Your task to perform on an android device: toggle priority inbox in the gmail app Image 0: 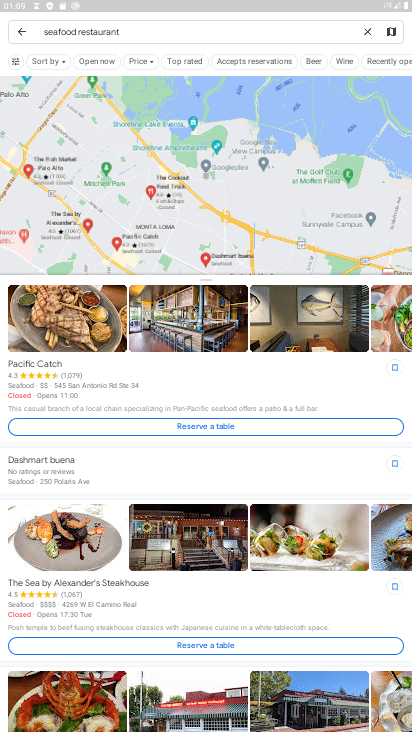
Step 0: press home button
Your task to perform on an android device: toggle priority inbox in the gmail app Image 1: 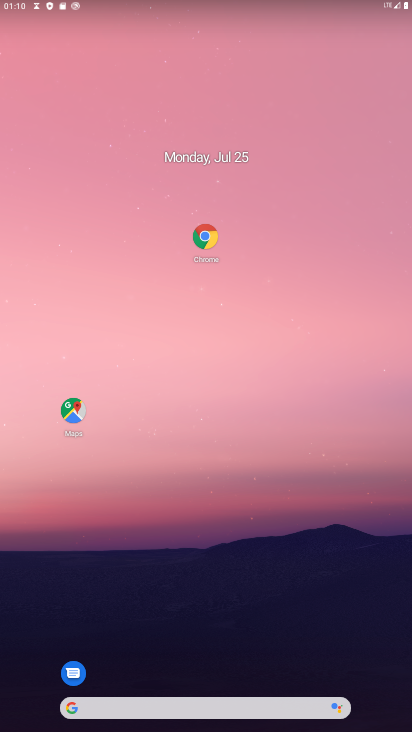
Step 1: drag from (293, 646) to (313, 38)
Your task to perform on an android device: toggle priority inbox in the gmail app Image 2: 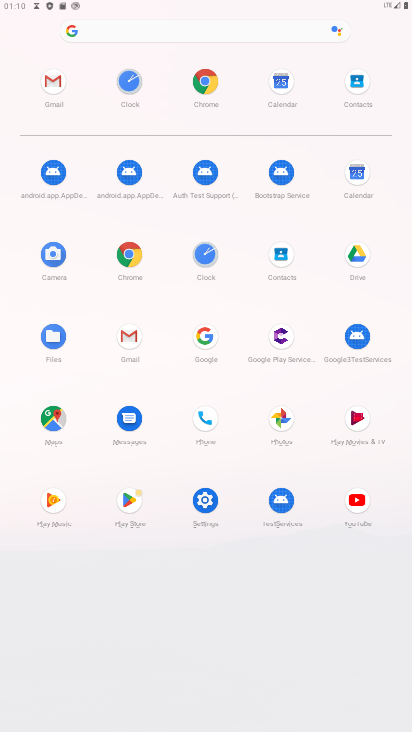
Step 2: click (118, 341)
Your task to perform on an android device: toggle priority inbox in the gmail app Image 3: 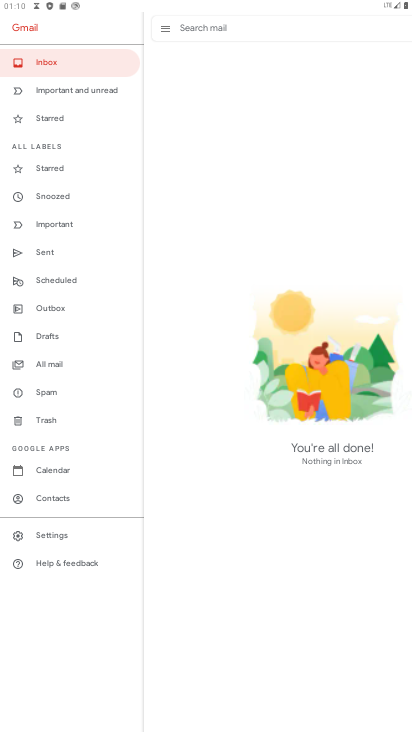
Step 3: click (70, 543)
Your task to perform on an android device: toggle priority inbox in the gmail app Image 4: 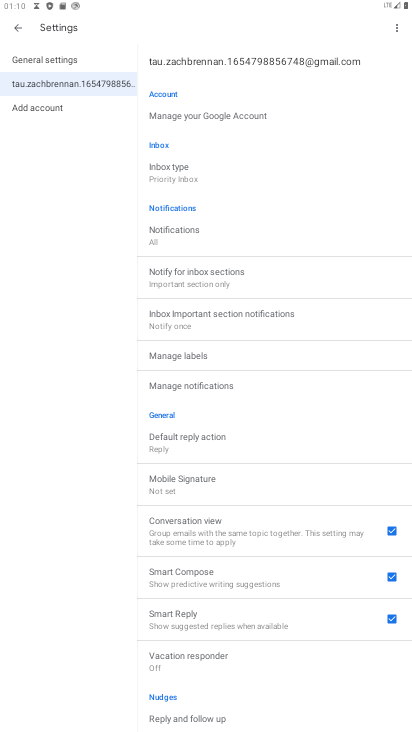
Step 4: click (185, 174)
Your task to perform on an android device: toggle priority inbox in the gmail app Image 5: 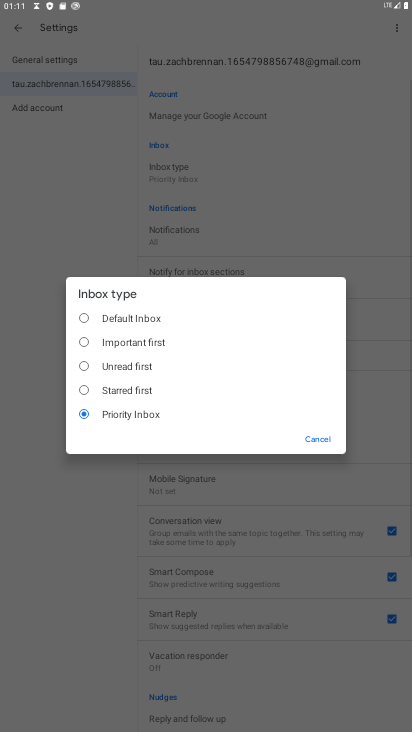
Step 5: click (84, 313)
Your task to perform on an android device: toggle priority inbox in the gmail app Image 6: 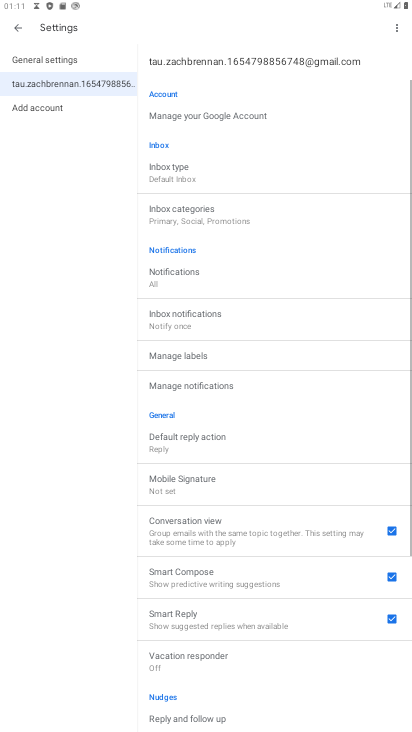
Step 6: task complete